Your task to perform on an android device: Open wifi settings Image 0: 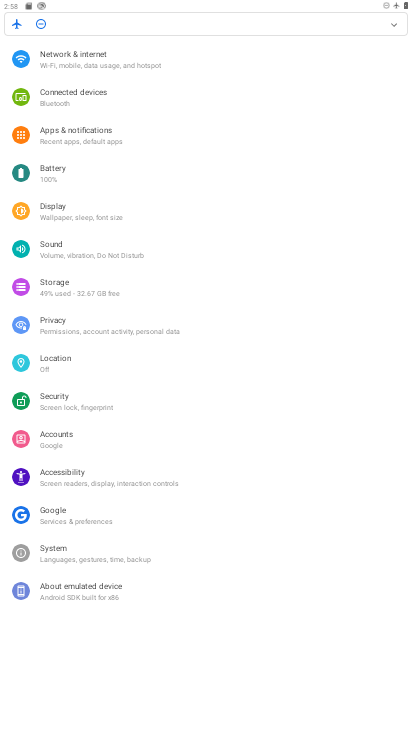
Step 0: click (115, 64)
Your task to perform on an android device: Open wifi settings Image 1: 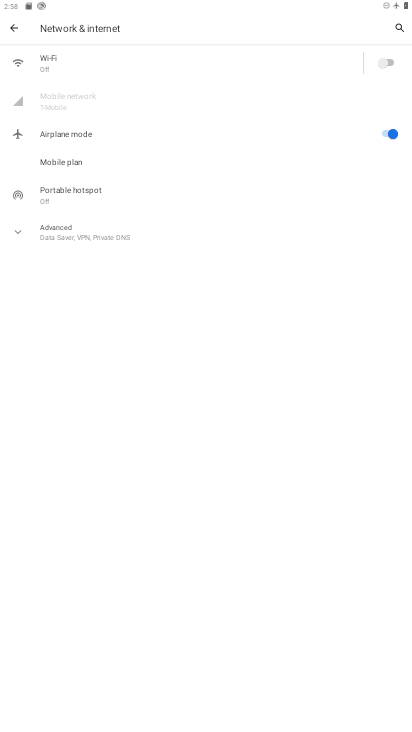
Step 1: click (312, 87)
Your task to perform on an android device: Open wifi settings Image 2: 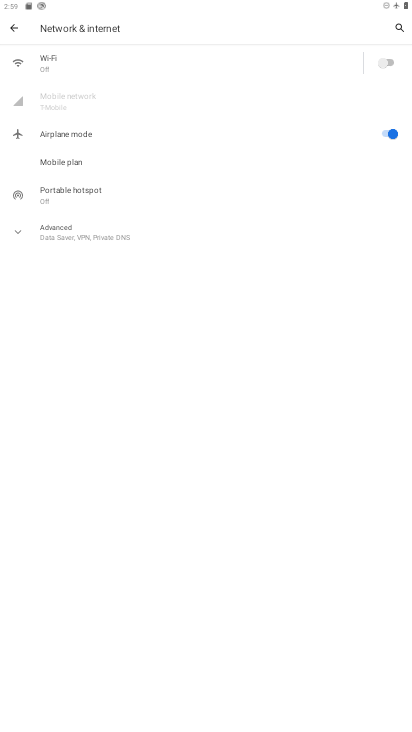
Step 2: task complete